Your task to perform on an android device: Is it going to rain today? Image 0: 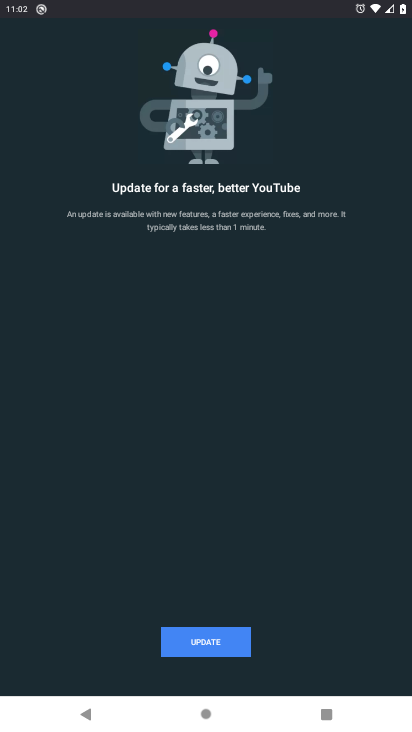
Step 0: press home button
Your task to perform on an android device: Is it going to rain today? Image 1: 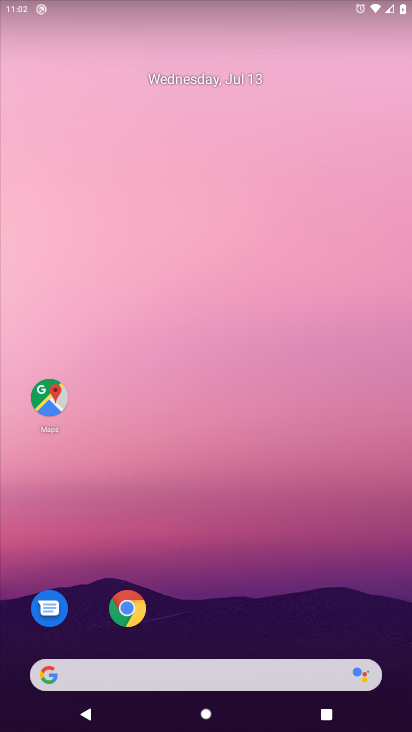
Step 1: click (91, 683)
Your task to perform on an android device: Is it going to rain today? Image 2: 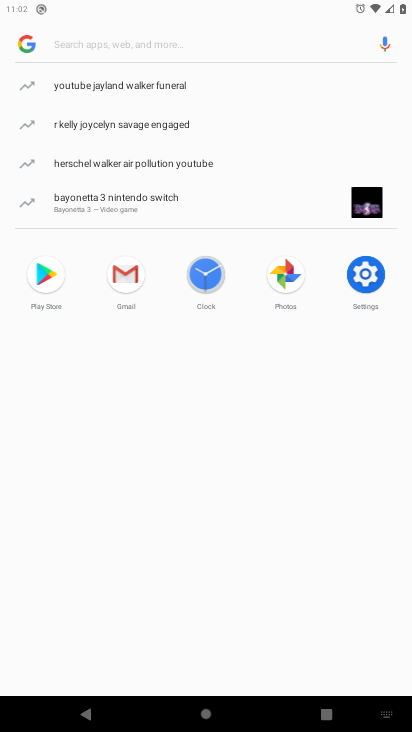
Step 2: click (54, 23)
Your task to perform on an android device: Is it going to rain today? Image 3: 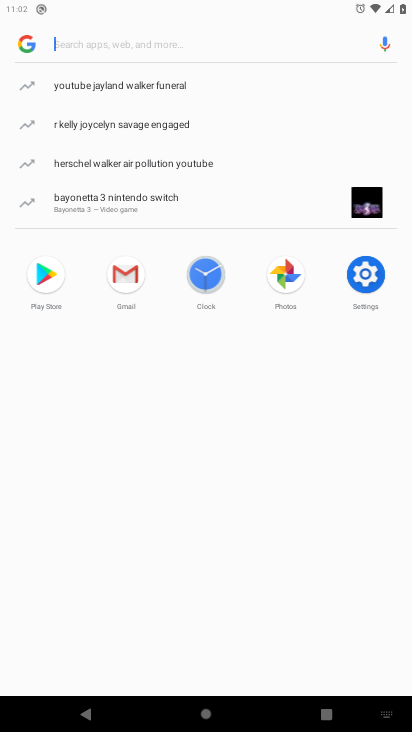
Step 3: type "Is it going to rain today?"
Your task to perform on an android device: Is it going to rain today? Image 4: 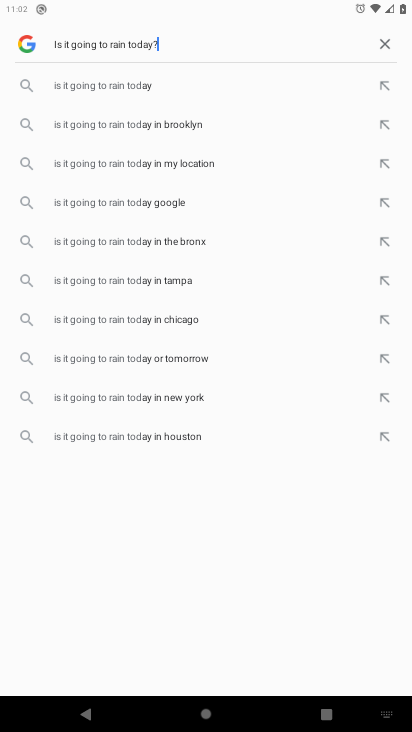
Step 4: type ""
Your task to perform on an android device: Is it going to rain today? Image 5: 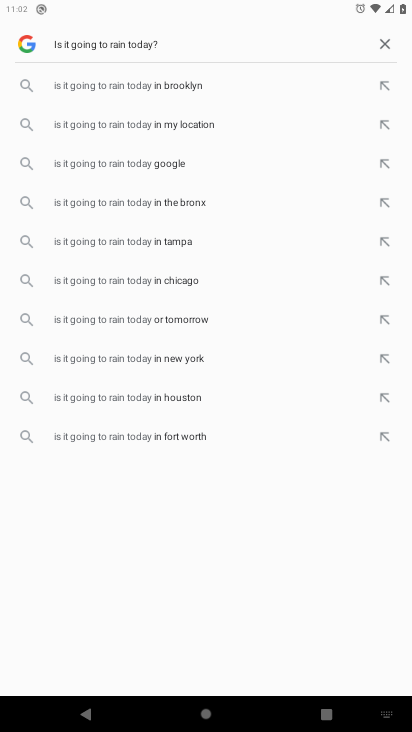
Step 5: type ""
Your task to perform on an android device: Is it going to rain today? Image 6: 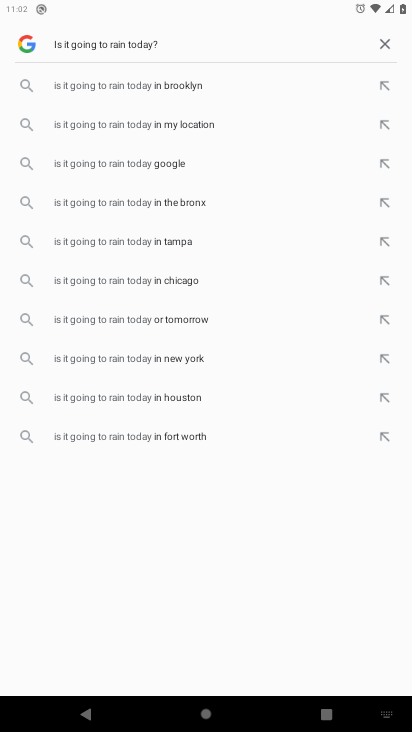
Step 6: type ""
Your task to perform on an android device: Is it going to rain today? Image 7: 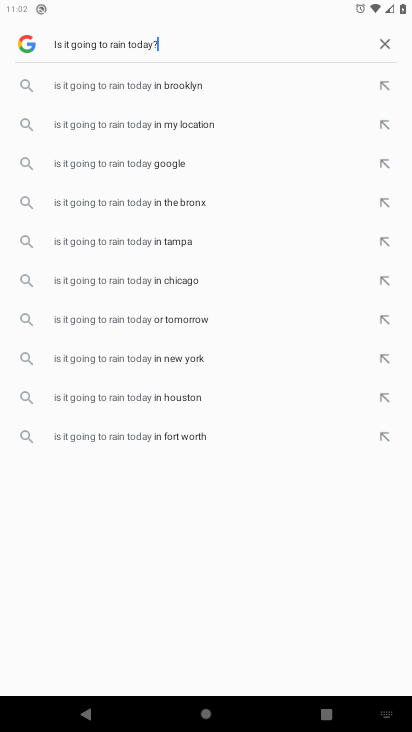
Step 7: type ""
Your task to perform on an android device: Is it going to rain today? Image 8: 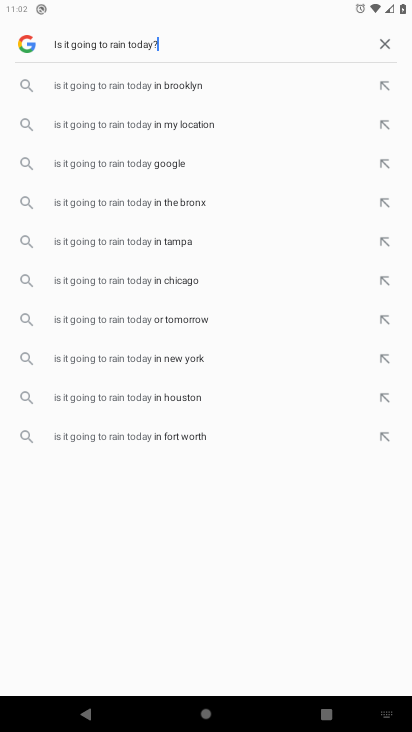
Step 8: task complete